Your task to perform on an android device: turn notification dots on Image 0: 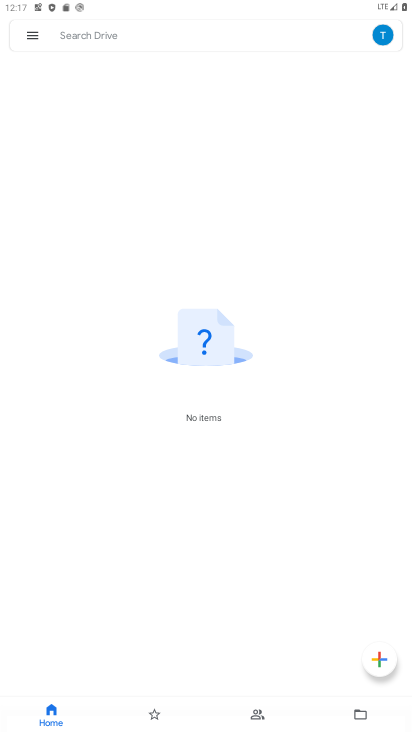
Step 0: click (23, 36)
Your task to perform on an android device: turn notification dots on Image 1: 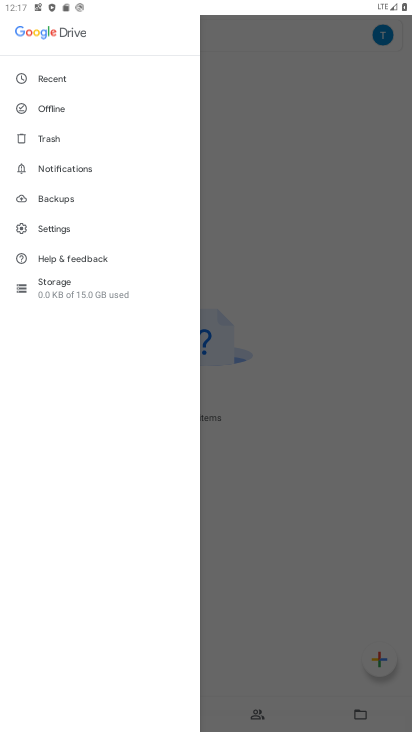
Step 1: press home button
Your task to perform on an android device: turn notification dots on Image 2: 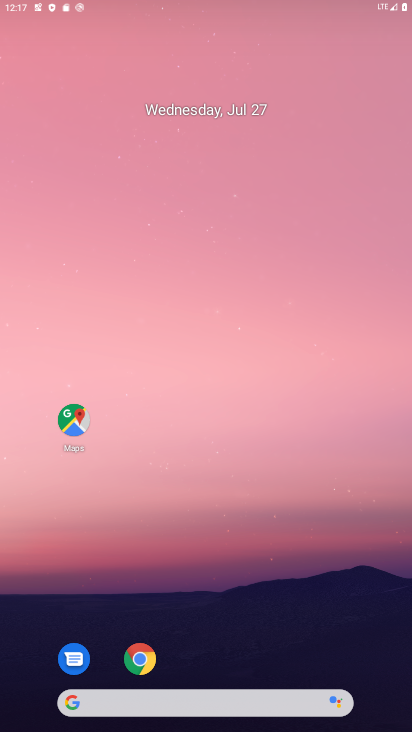
Step 2: drag from (240, 658) to (265, 202)
Your task to perform on an android device: turn notification dots on Image 3: 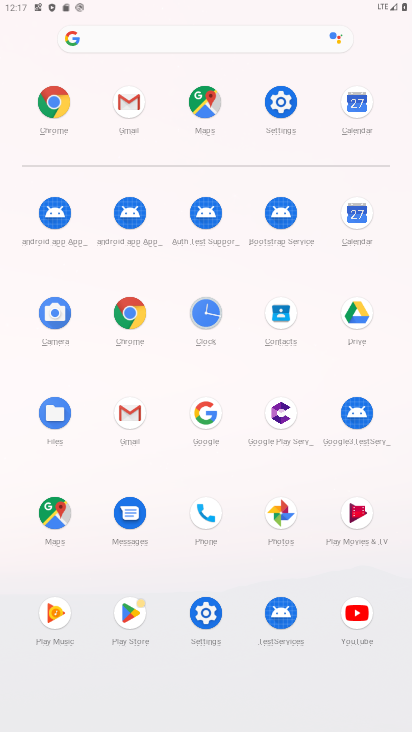
Step 3: click (265, 123)
Your task to perform on an android device: turn notification dots on Image 4: 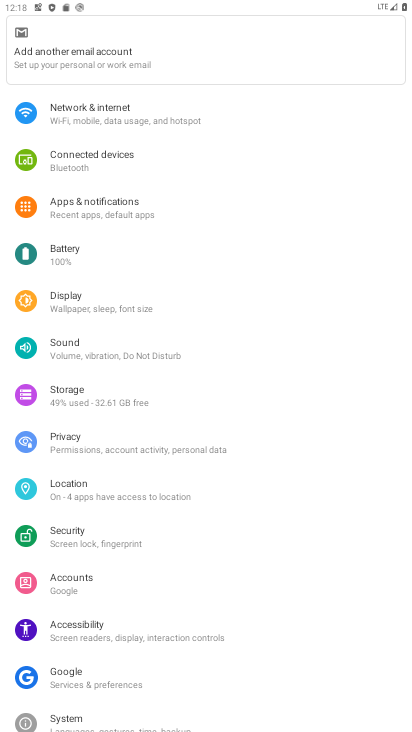
Step 4: click (140, 218)
Your task to perform on an android device: turn notification dots on Image 5: 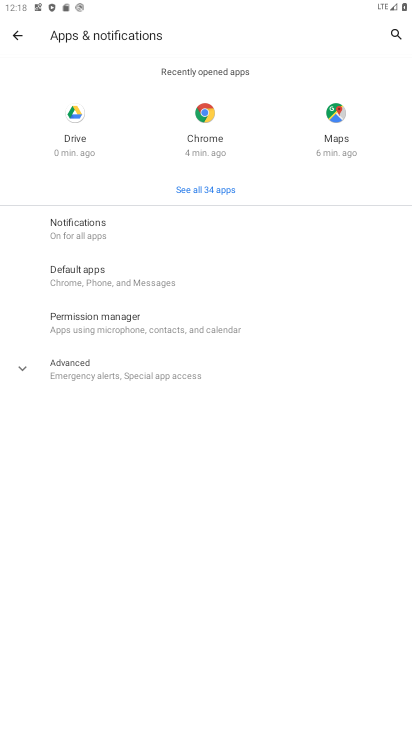
Step 5: click (158, 240)
Your task to perform on an android device: turn notification dots on Image 6: 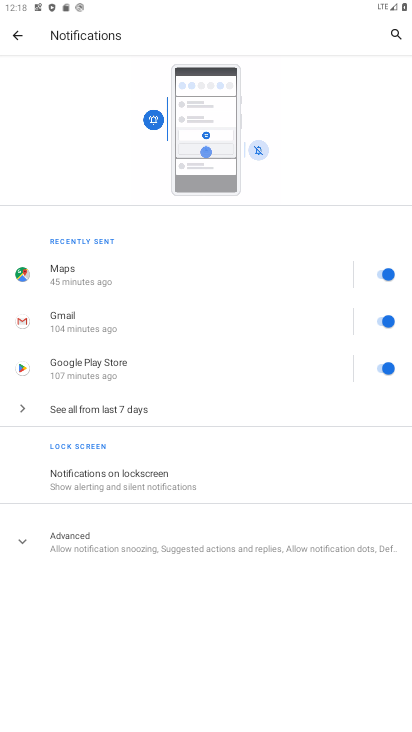
Step 6: click (147, 551)
Your task to perform on an android device: turn notification dots on Image 7: 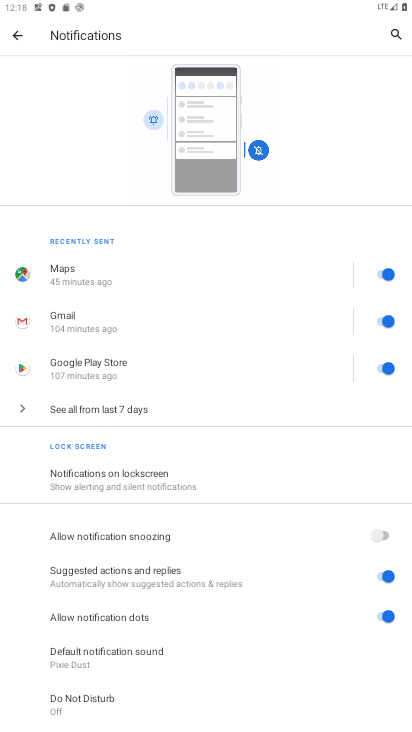
Step 7: task complete